Your task to perform on an android device: Check the news Image 0: 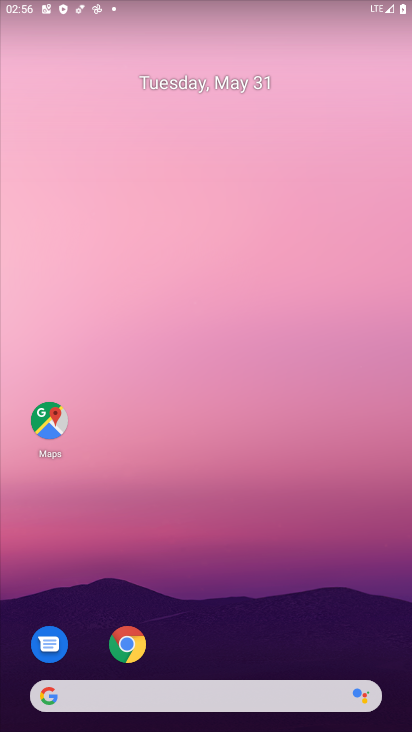
Step 0: click (130, 643)
Your task to perform on an android device: Check the news Image 1: 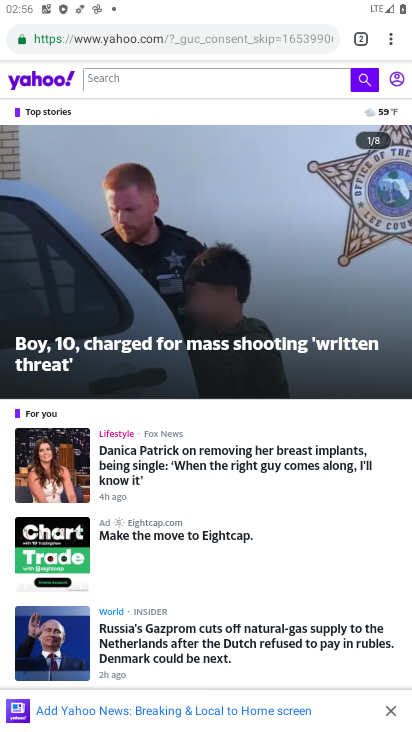
Step 1: click (261, 25)
Your task to perform on an android device: Check the news Image 2: 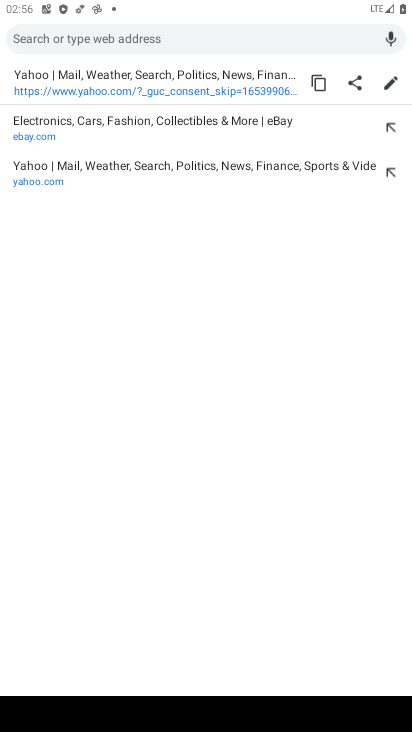
Step 2: type "news"
Your task to perform on an android device: Check the news Image 3: 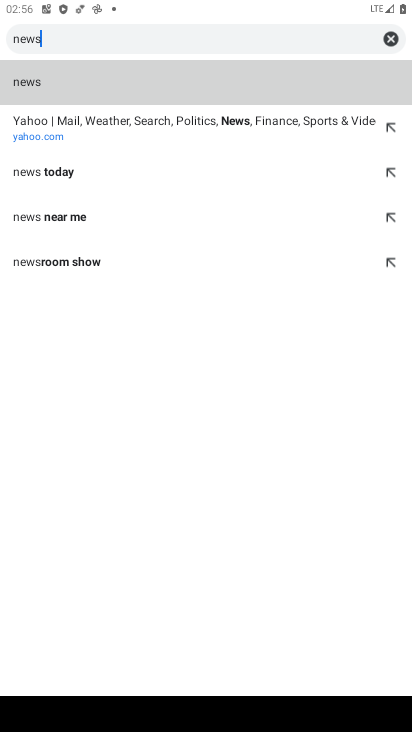
Step 3: click (24, 86)
Your task to perform on an android device: Check the news Image 4: 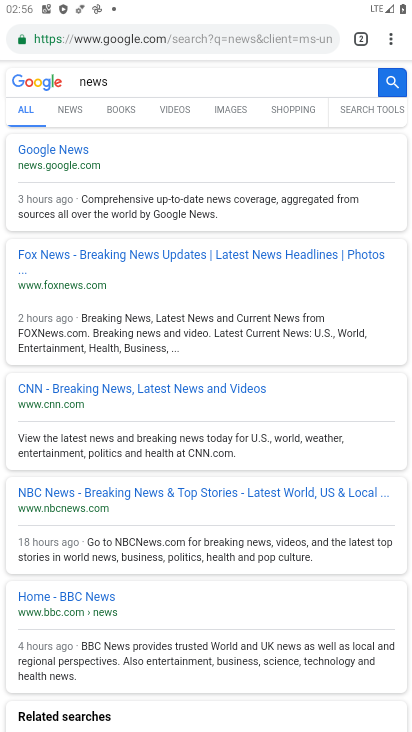
Step 4: click (67, 149)
Your task to perform on an android device: Check the news Image 5: 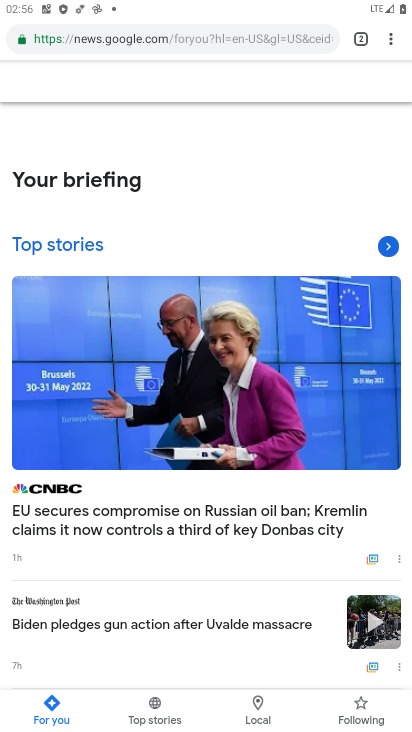
Step 5: task complete